Your task to perform on an android device: Go to calendar. Show me events next week Image 0: 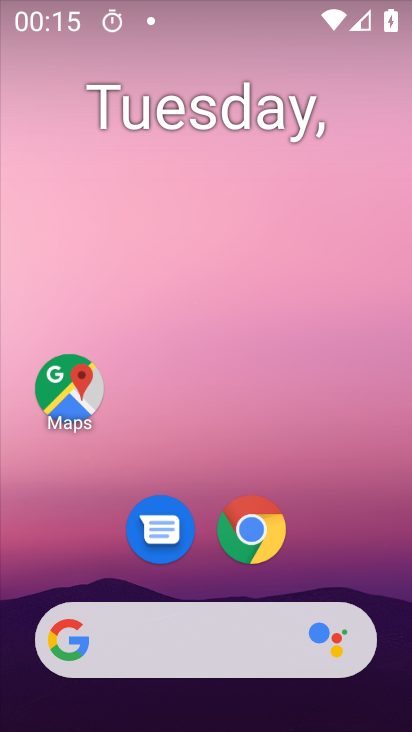
Step 0: drag from (377, 471) to (348, 75)
Your task to perform on an android device: Go to calendar. Show me events next week Image 1: 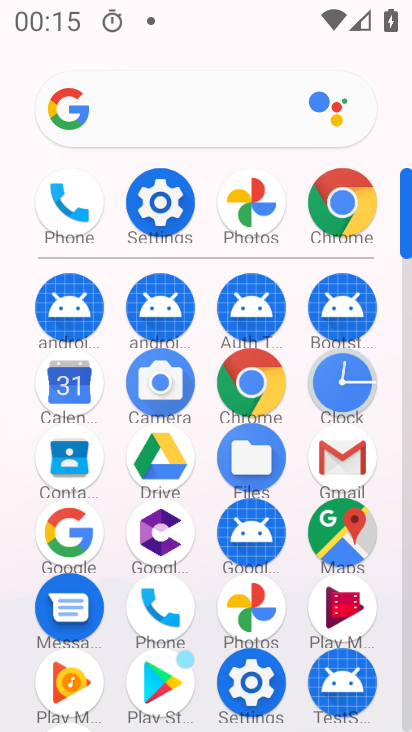
Step 1: click (62, 390)
Your task to perform on an android device: Go to calendar. Show me events next week Image 2: 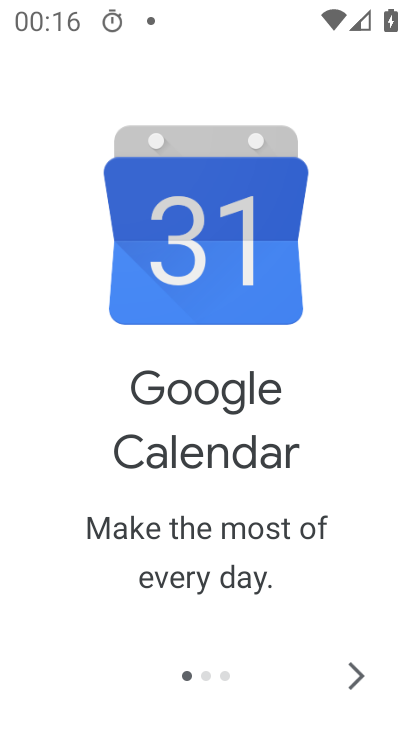
Step 2: click (368, 670)
Your task to perform on an android device: Go to calendar. Show me events next week Image 3: 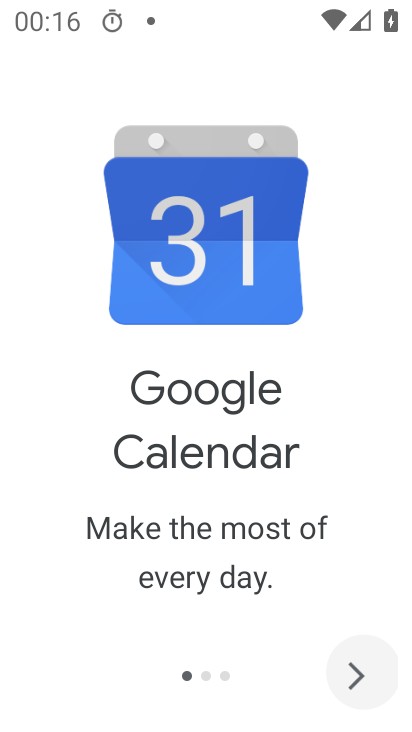
Step 3: click (368, 670)
Your task to perform on an android device: Go to calendar. Show me events next week Image 4: 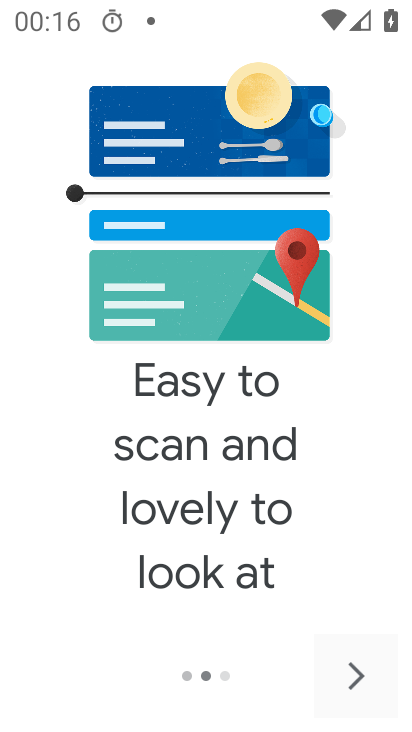
Step 4: click (368, 670)
Your task to perform on an android device: Go to calendar. Show me events next week Image 5: 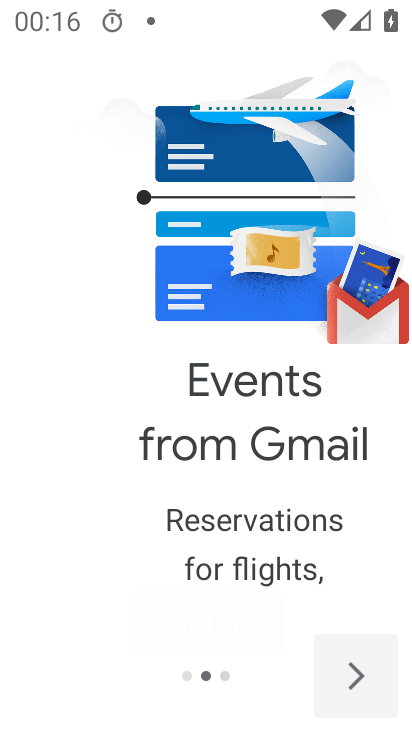
Step 5: click (368, 670)
Your task to perform on an android device: Go to calendar. Show me events next week Image 6: 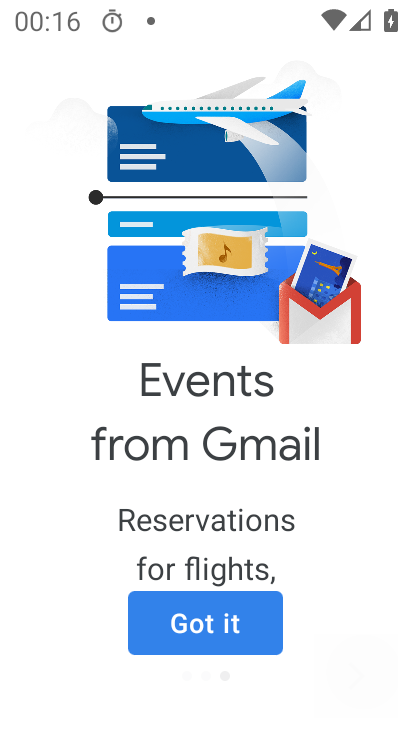
Step 6: click (368, 670)
Your task to perform on an android device: Go to calendar. Show me events next week Image 7: 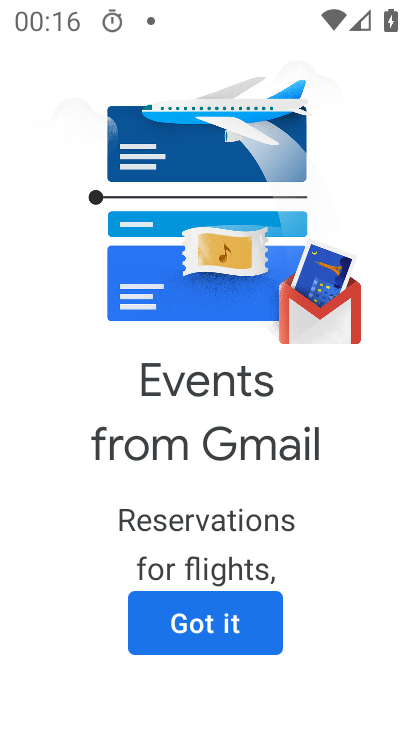
Step 7: click (368, 670)
Your task to perform on an android device: Go to calendar. Show me events next week Image 8: 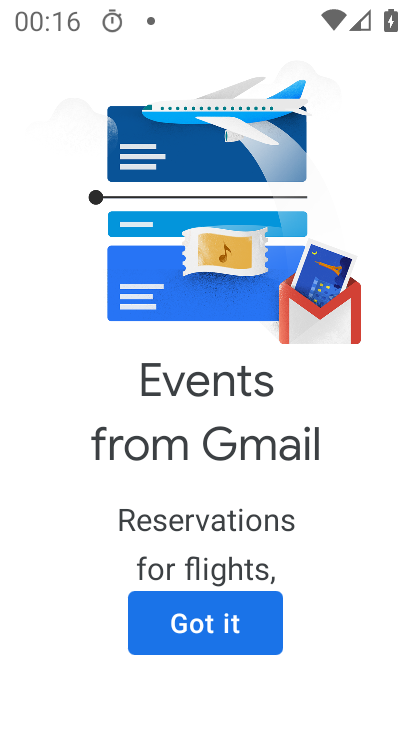
Step 8: click (153, 638)
Your task to perform on an android device: Go to calendar. Show me events next week Image 9: 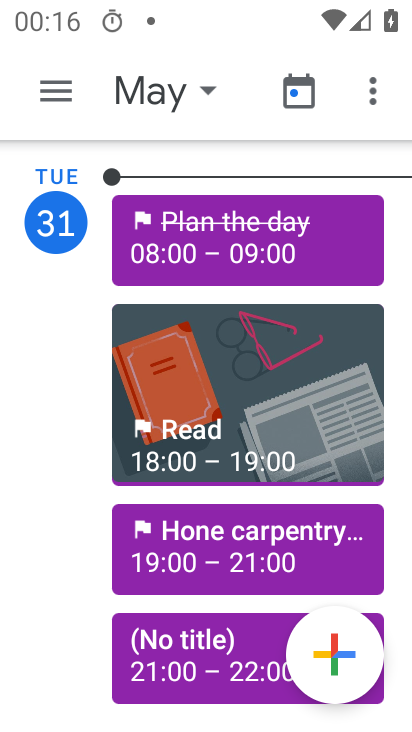
Step 9: click (189, 100)
Your task to perform on an android device: Go to calendar. Show me events next week Image 10: 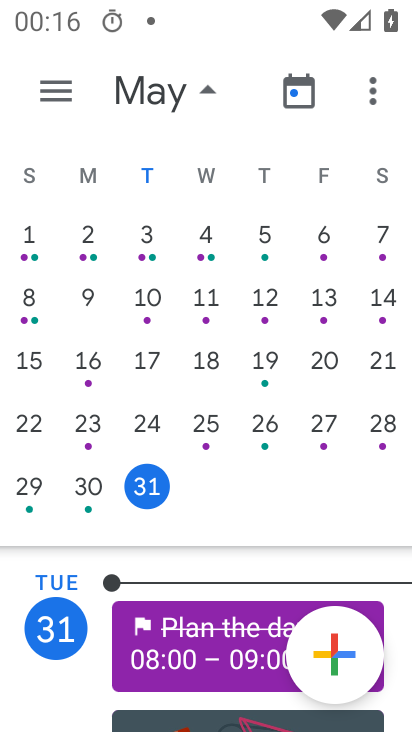
Step 10: drag from (341, 274) to (82, 262)
Your task to perform on an android device: Go to calendar. Show me events next week Image 11: 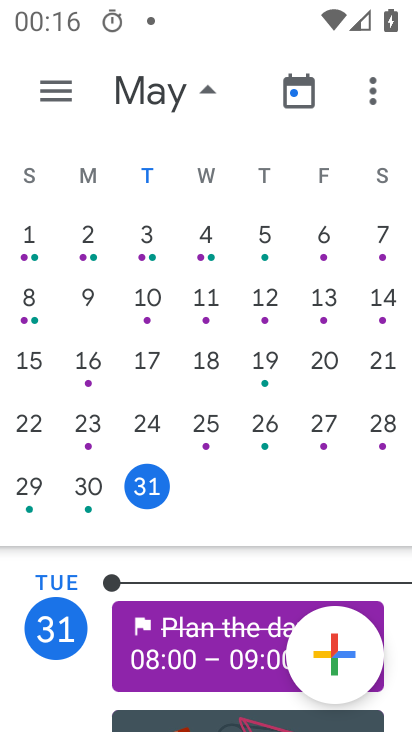
Step 11: drag from (376, 336) to (0, 360)
Your task to perform on an android device: Go to calendar. Show me events next week Image 12: 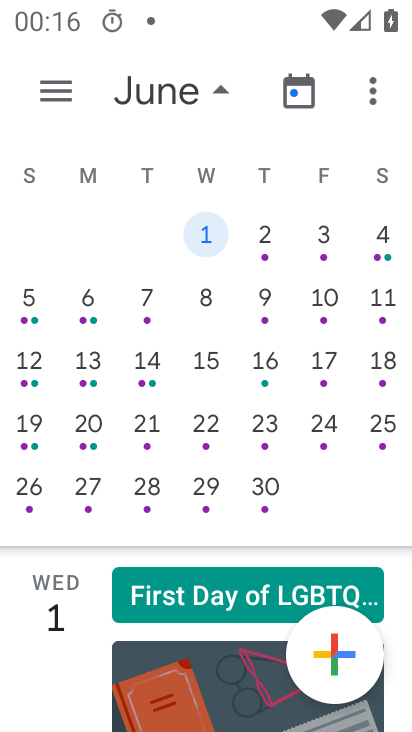
Step 12: click (329, 251)
Your task to perform on an android device: Go to calendar. Show me events next week Image 13: 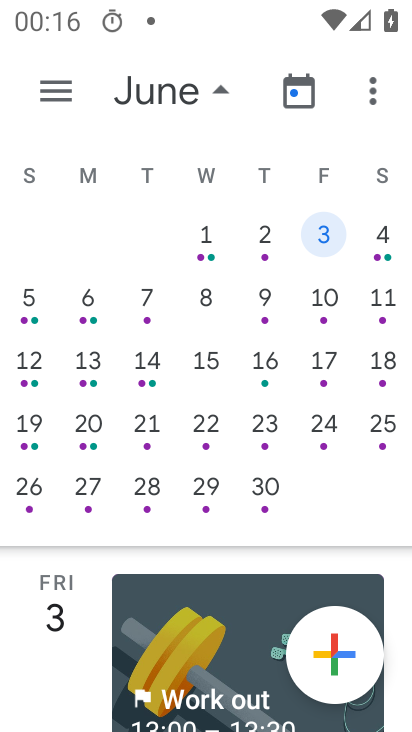
Step 13: task complete